Your task to perform on an android device: What's the weather today? Image 0: 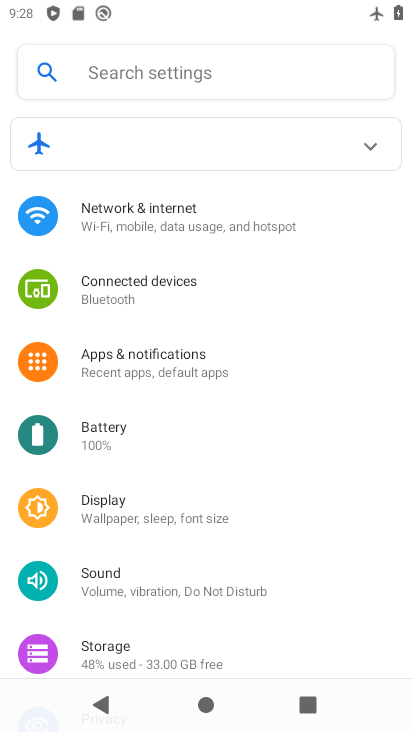
Step 0: press home button
Your task to perform on an android device: What's the weather today? Image 1: 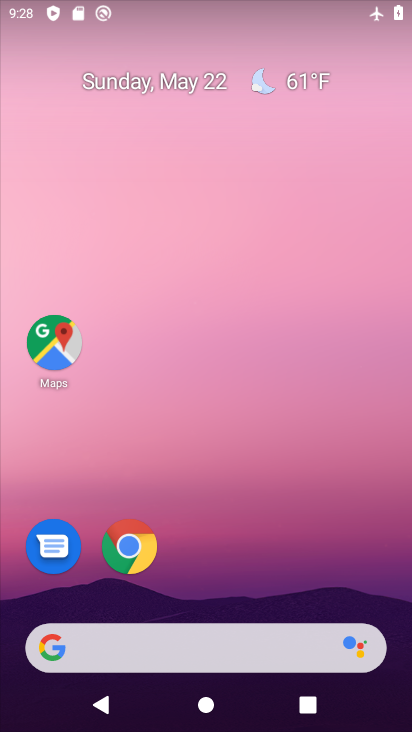
Step 1: click (308, 86)
Your task to perform on an android device: What's the weather today? Image 2: 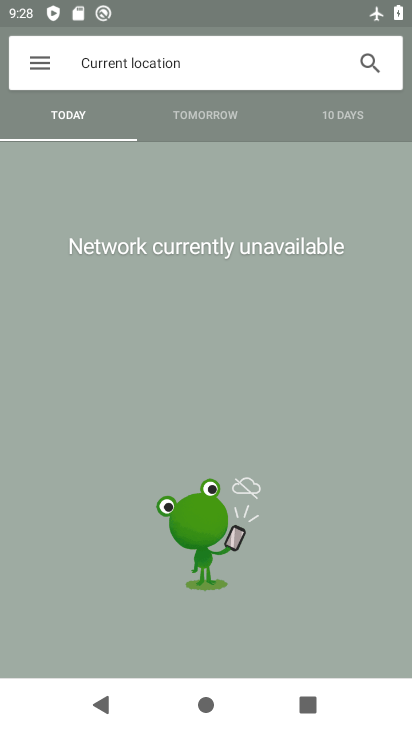
Step 2: task complete